Your task to perform on an android device: turn off location Image 0: 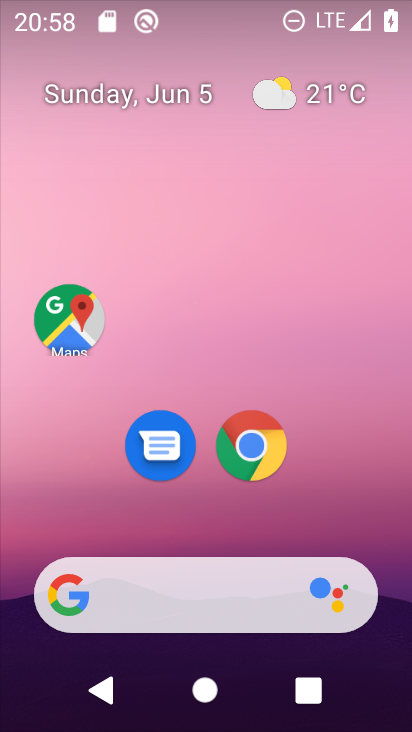
Step 0: press home button
Your task to perform on an android device: turn off location Image 1: 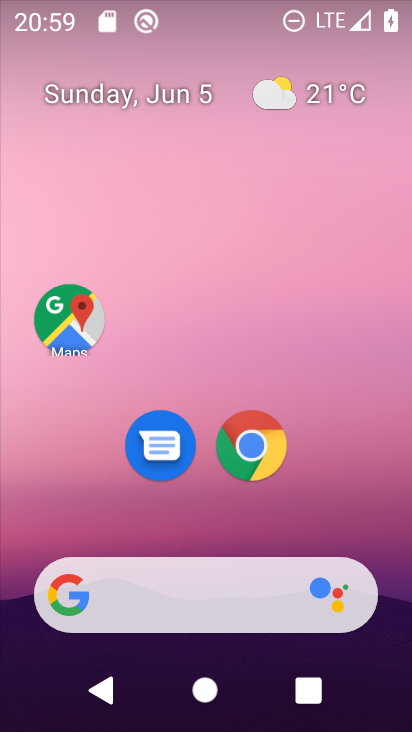
Step 1: drag from (333, 475) to (316, 163)
Your task to perform on an android device: turn off location Image 2: 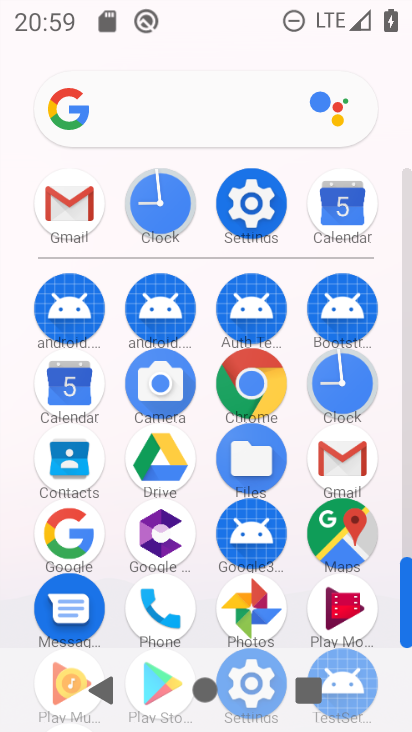
Step 2: click (247, 207)
Your task to perform on an android device: turn off location Image 3: 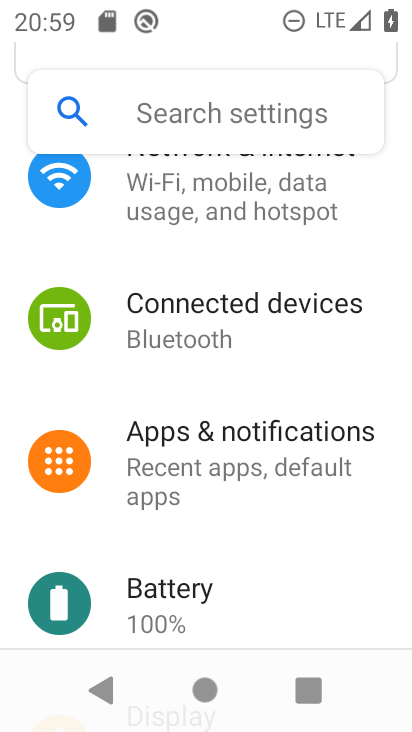
Step 3: drag from (56, 539) to (134, 146)
Your task to perform on an android device: turn off location Image 4: 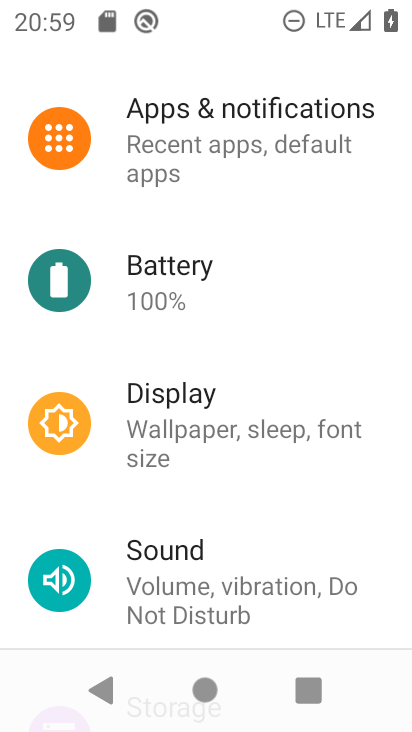
Step 4: drag from (64, 513) to (103, 194)
Your task to perform on an android device: turn off location Image 5: 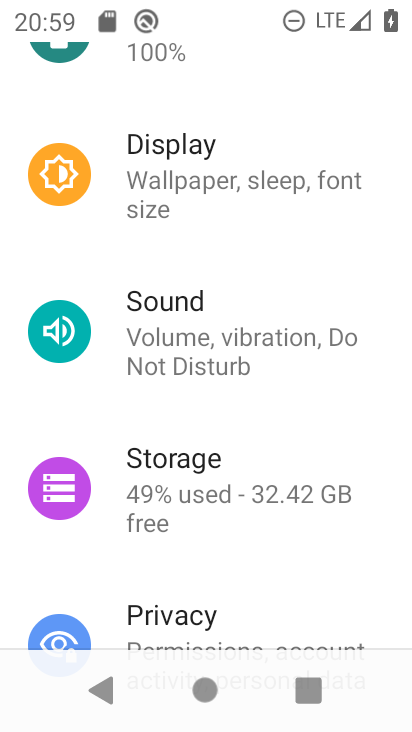
Step 5: drag from (42, 585) to (98, 193)
Your task to perform on an android device: turn off location Image 6: 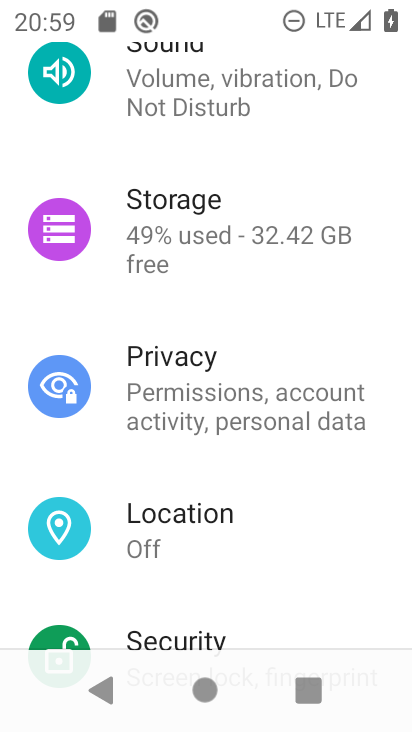
Step 6: click (170, 509)
Your task to perform on an android device: turn off location Image 7: 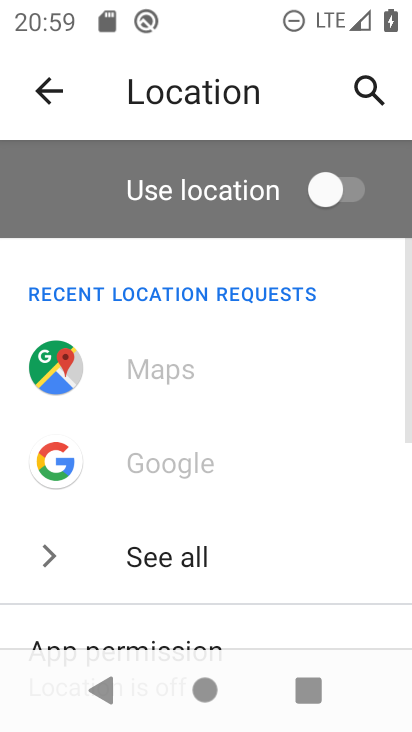
Step 7: task complete